Your task to perform on an android device: Search for "razer nari" on walmart.com, select the first entry, add it to the cart, then select checkout. Image 0: 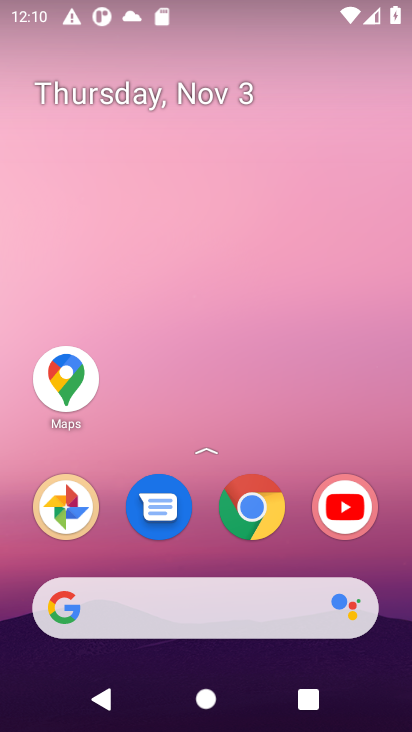
Step 0: click (267, 605)
Your task to perform on an android device: Search for "razer nari" on walmart.com, select the first entry, add it to the cart, then select checkout. Image 1: 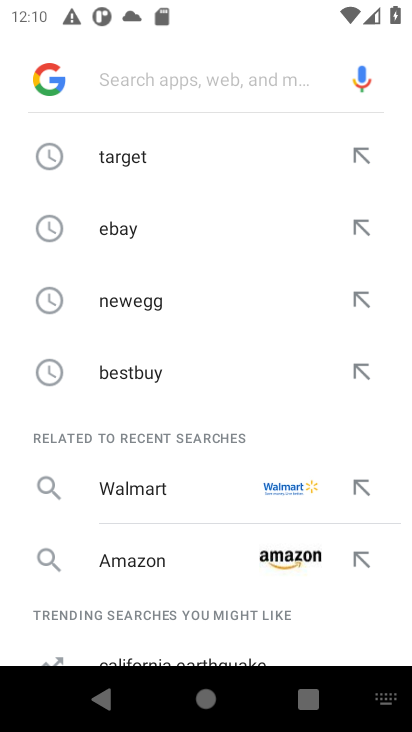
Step 1: type "walmart"
Your task to perform on an android device: Search for "razer nari" on walmart.com, select the first entry, add it to the cart, then select checkout. Image 2: 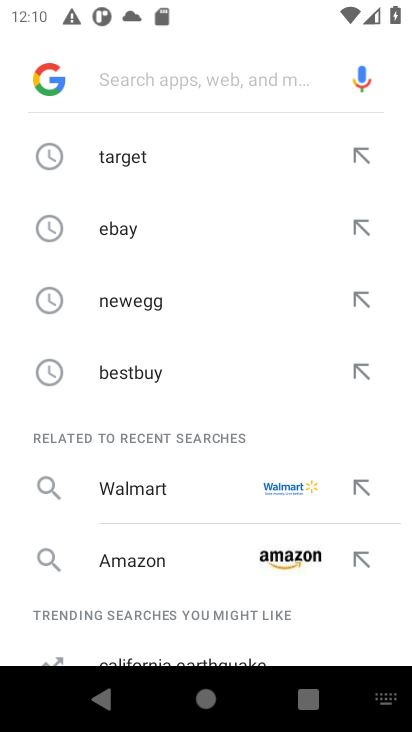
Step 2: click (186, 500)
Your task to perform on an android device: Search for "razer nari" on walmart.com, select the first entry, add it to the cart, then select checkout. Image 3: 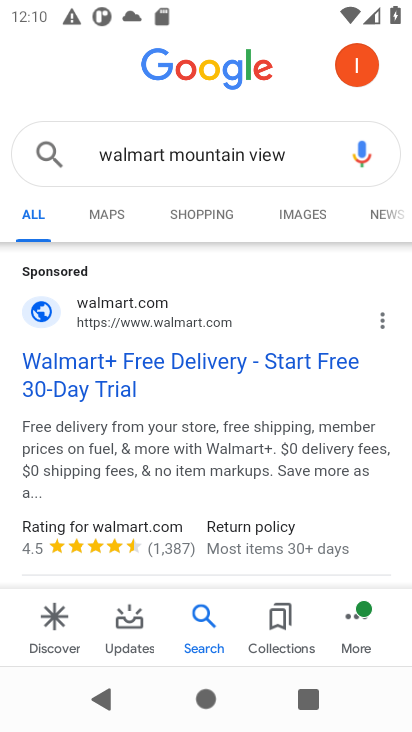
Step 3: click (67, 390)
Your task to perform on an android device: Search for "razer nari" on walmart.com, select the first entry, add it to the cart, then select checkout. Image 4: 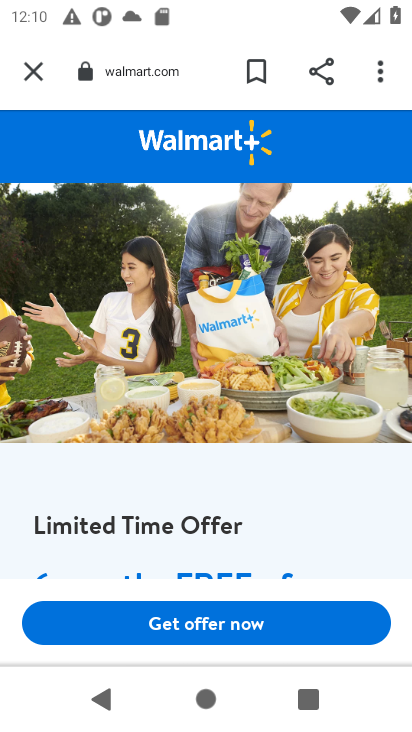
Step 4: task complete